Your task to perform on an android device: toggle improve location accuracy Image 0: 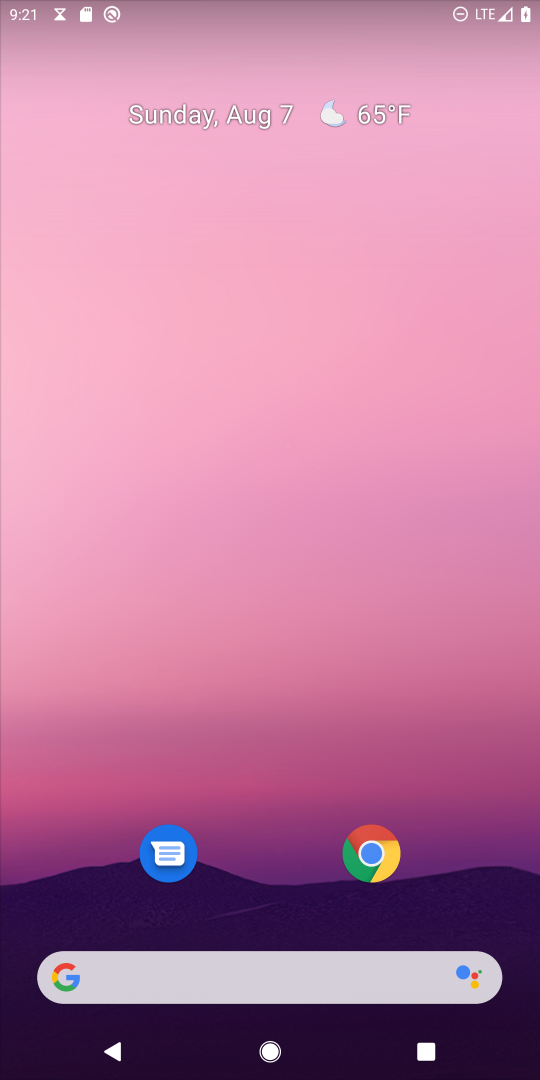
Step 0: drag from (275, 792) to (273, 182)
Your task to perform on an android device: toggle improve location accuracy Image 1: 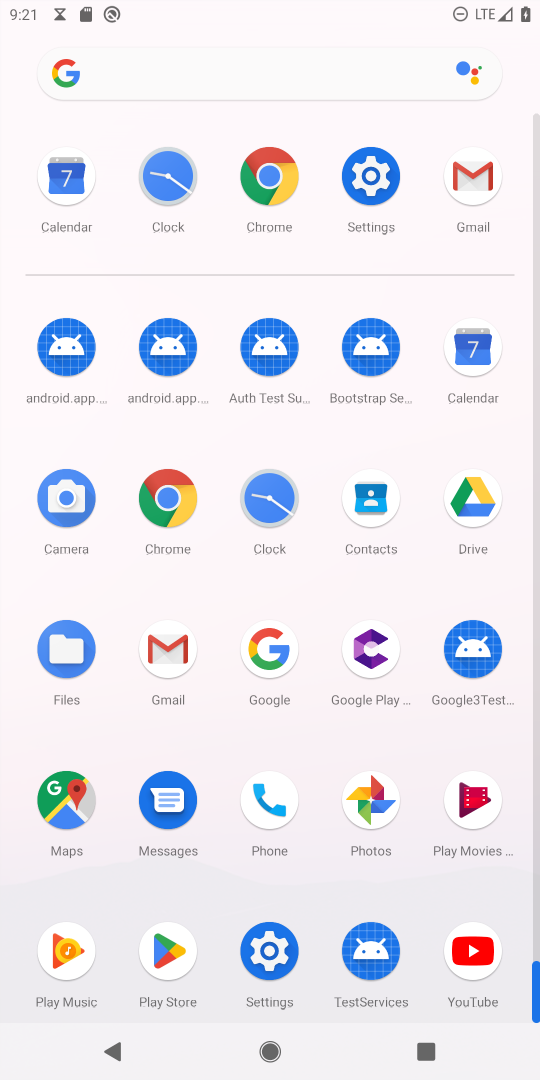
Step 1: click (378, 177)
Your task to perform on an android device: toggle improve location accuracy Image 2: 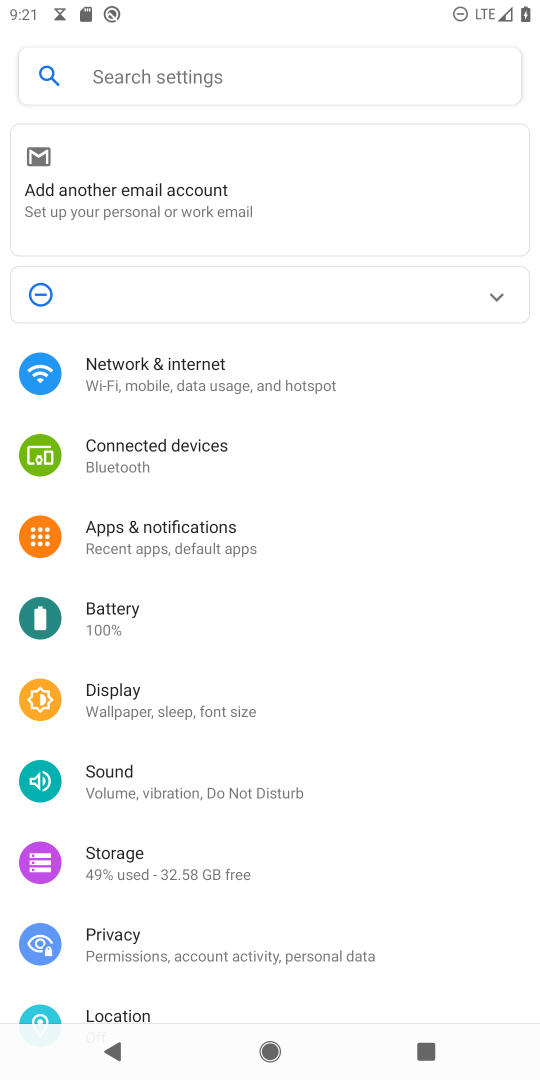
Step 2: drag from (150, 887) to (276, 294)
Your task to perform on an android device: toggle improve location accuracy Image 3: 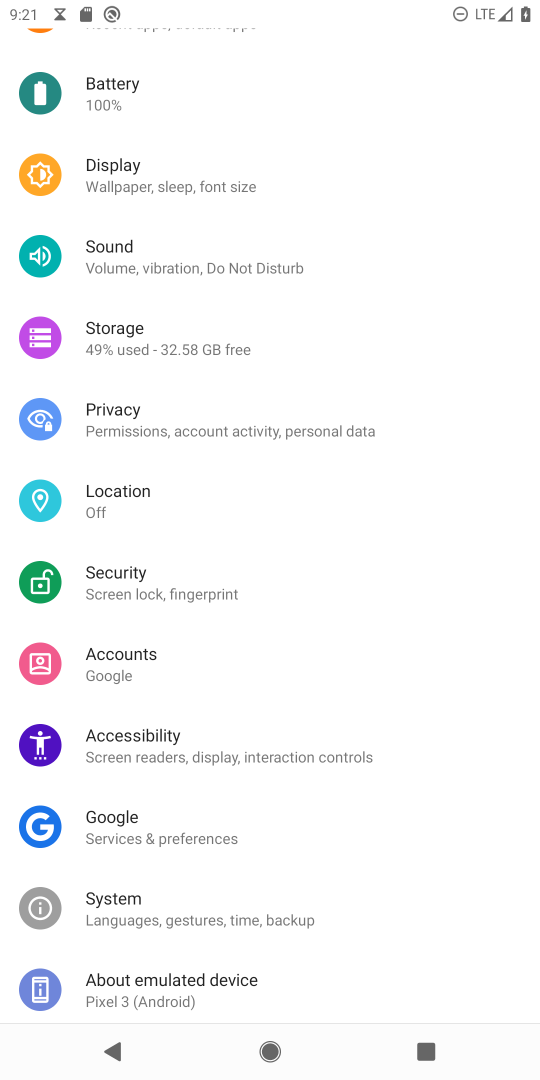
Step 3: click (130, 489)
Your task to perform on an android device: toggle improve location accuracy Image 4: 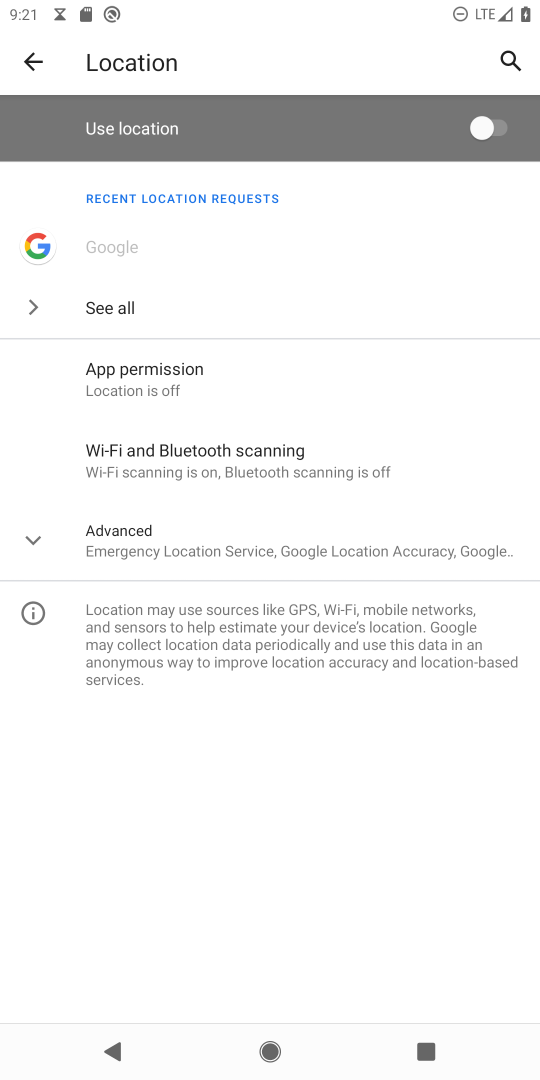
Step 4: click (188, 544)
Your task to perform on an android device: toggle improve location accuracy Image 5: 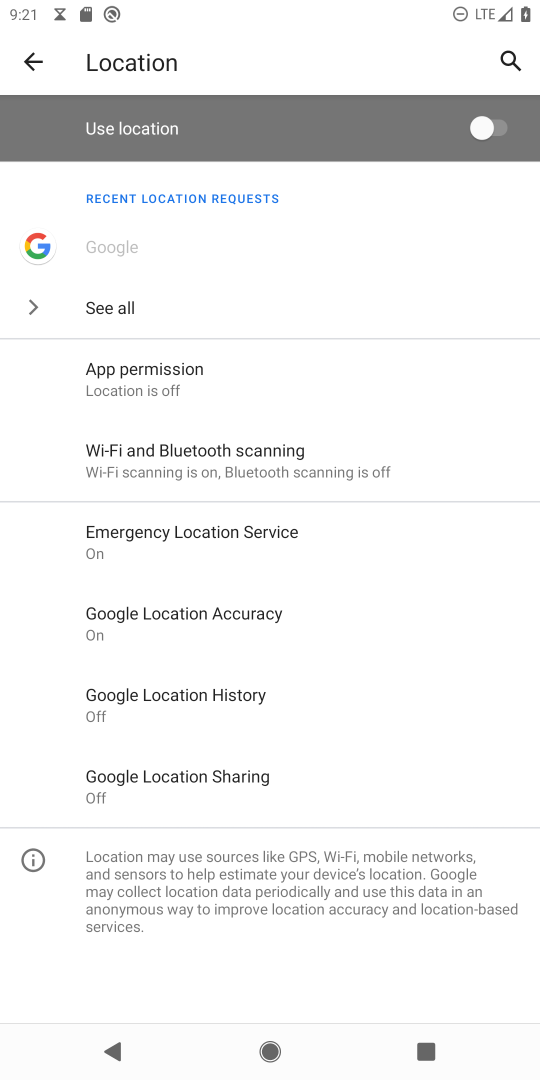
Step 5: click (218, 649)
Your task to perform on an android device: toggle improve location accuracy Image 6: 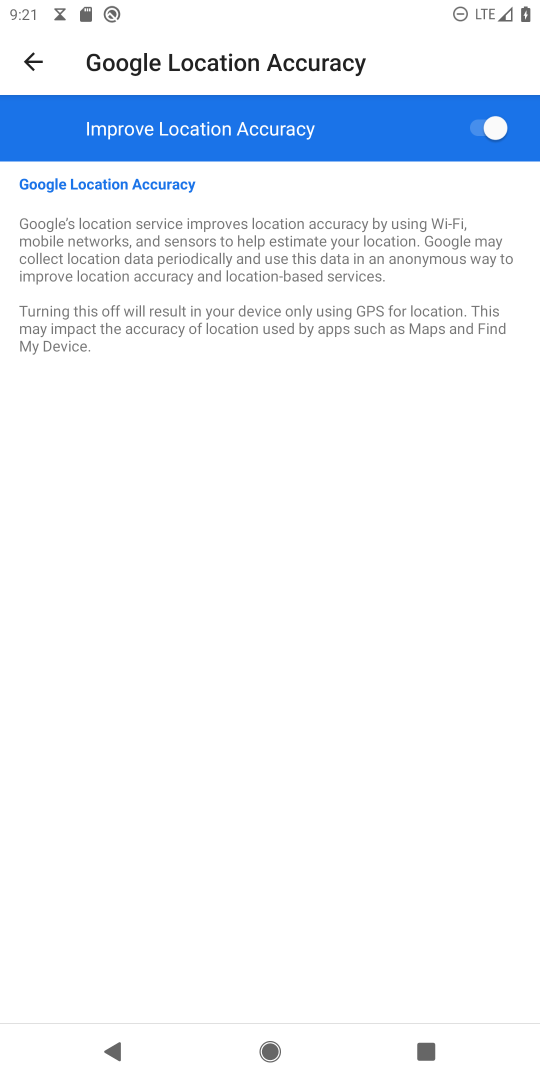
Step 6: click (478, 132)
Your task to perform on an android device: toggle improve location accuracy Image 7: 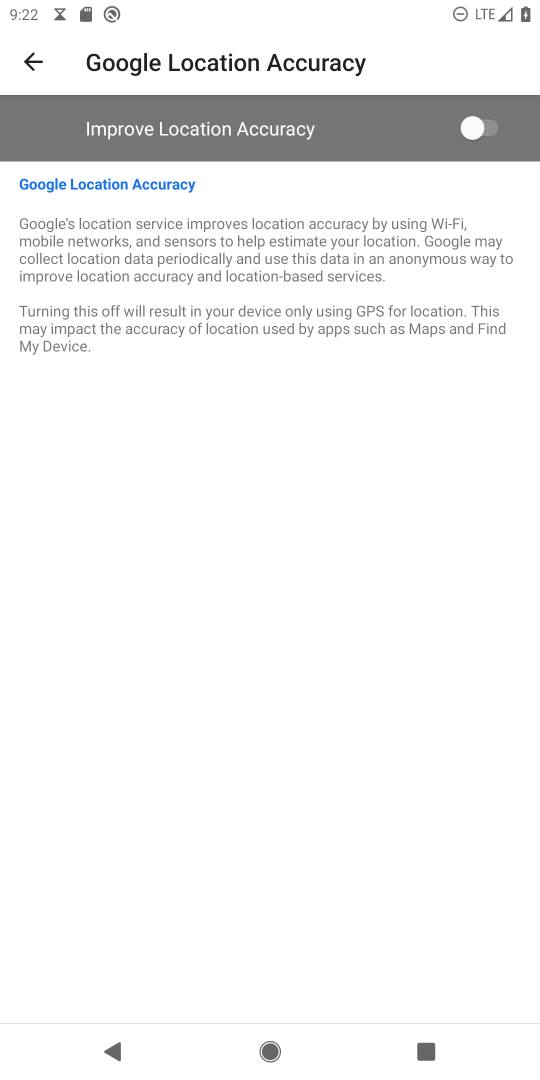
Step 7: task complete